Your task to perform on an android device: turn on the 24-hour format for clock Image 0: 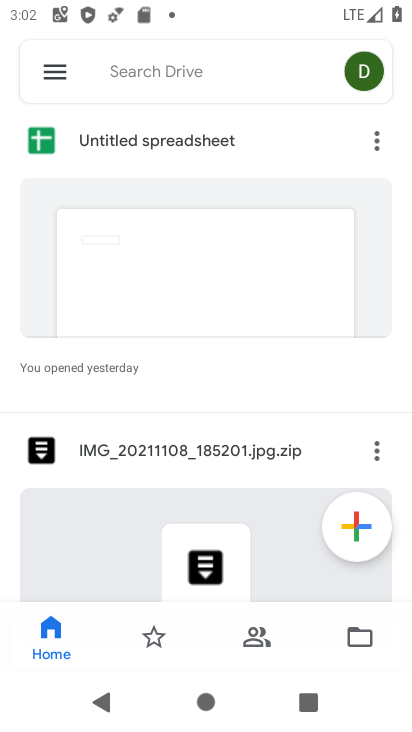
Step 0: drag from (204, 464) to (235, 94)
Your task to perform on an android device: turn on the 24-hour format for clock Image 1: 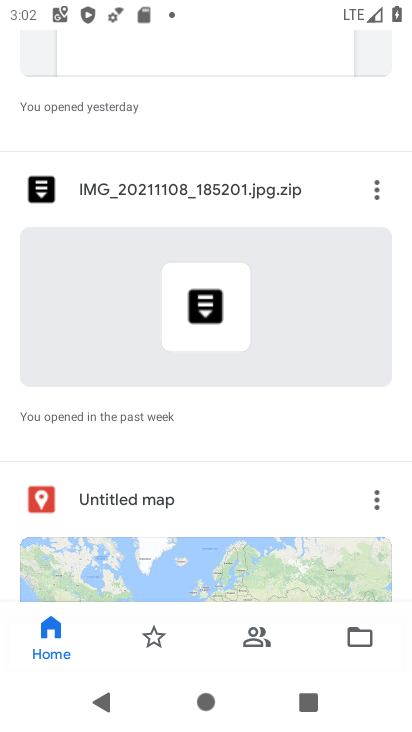
Step 1: drag from (179, 486) to (280, 163)
Your task to perform on an android device: turn on the 24-hour format for clock Image 2: 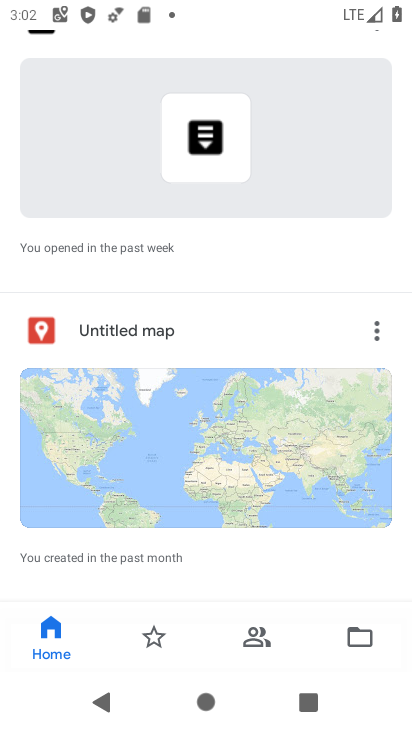
Step 2: drag from (246, 164) to (224, 609)
Your task to perform on an android device: turn on the 24-hour format for clock Image 3: 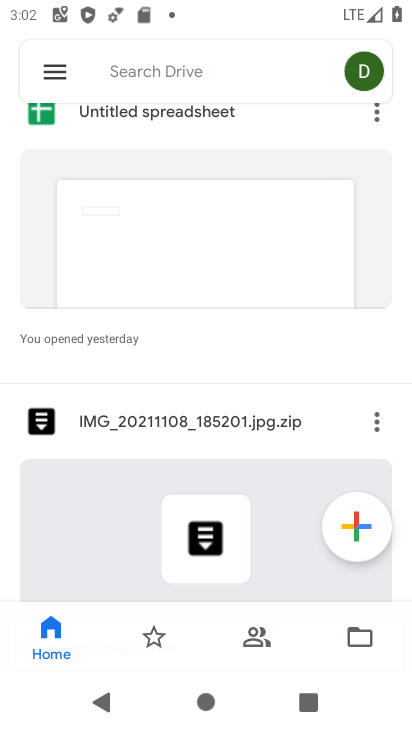
Step 3: press home button
Your task to perform on an android device: turn on the 24-hour format for clock Image 4: 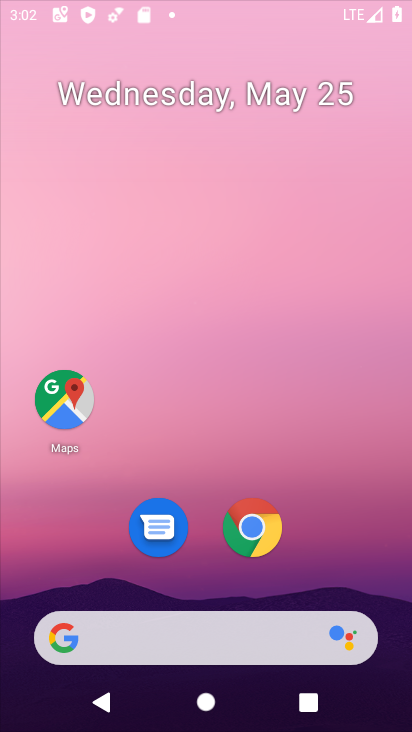
Step 4: drag from (174, 565) to (249, 5)
Your task to perform on an android device: turn on the 24-hour format for clock Image 5: 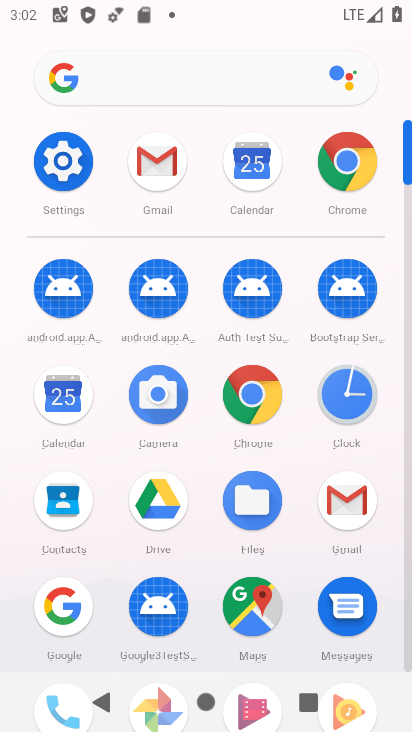
Step 5: click (333, 404)
Your task to perform on an android device: turn on the 24-hour format for clock Image 6: 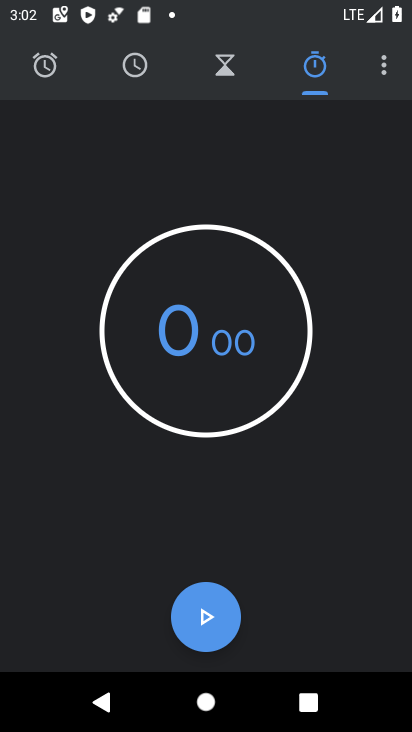
Step 6: click (390, 57)
Your task to perform on an android device: turn on the 24-hour format for clock Image 7: 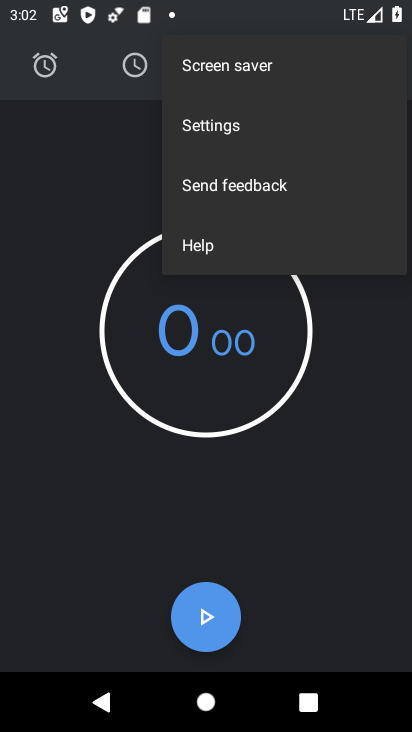
Step 7: click (242, 115)
Your task to perform on an android device: turn on the 24-hour format for clock Image 8: 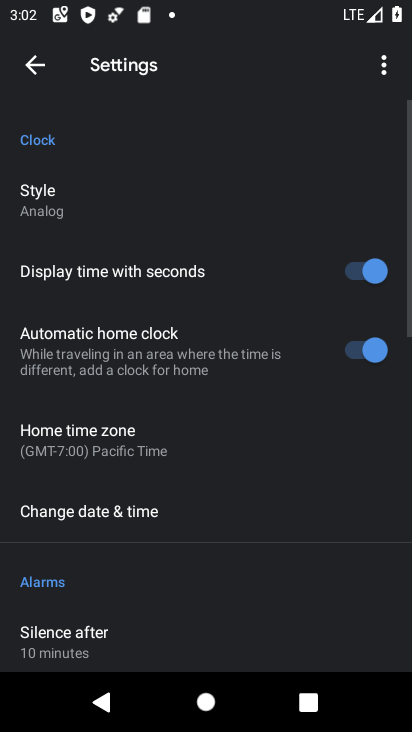
Step 8: click (81, 511)
Your task to perform on an android device: turn on the 24-hour format for clock Image 9: 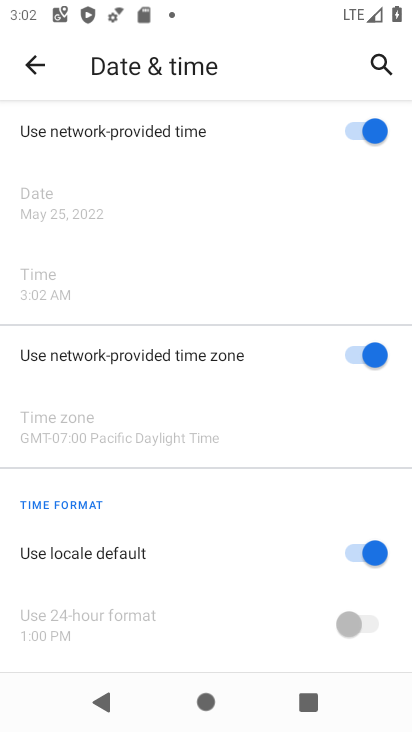
Step 9: drag from (185, 563) to (181, 723)
Your task to perform on an android device: turn on the 24-hour format for clock Image 10: 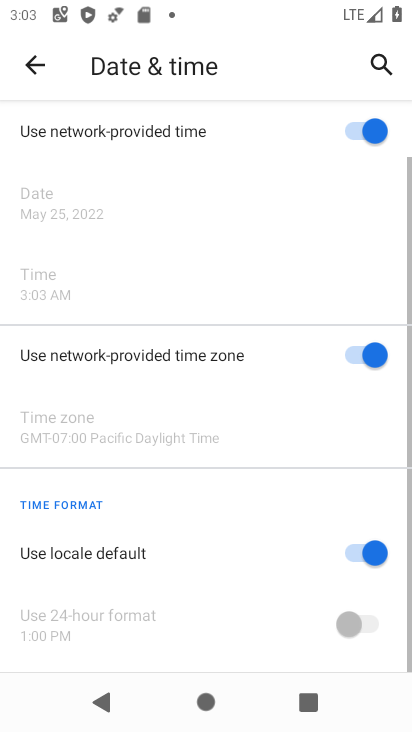
Step 10: click (368, 552)
Your task to perform on an android device: turn on the 24-hour format for clock Image 11: 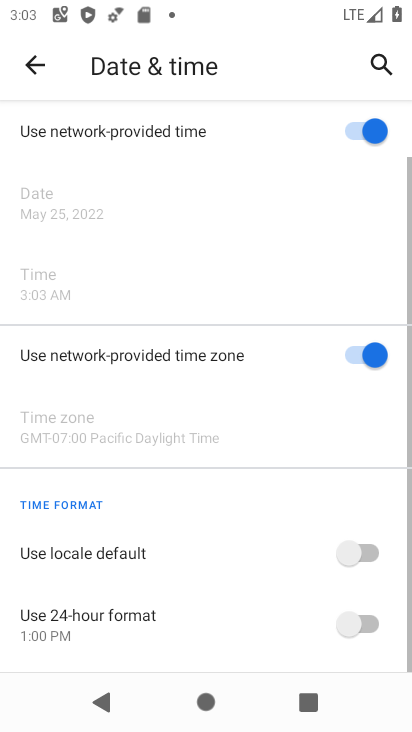
Step 11: click (336, 631)
Your task to perform on an android device: turn on the 24-hour format for clock Image 12: 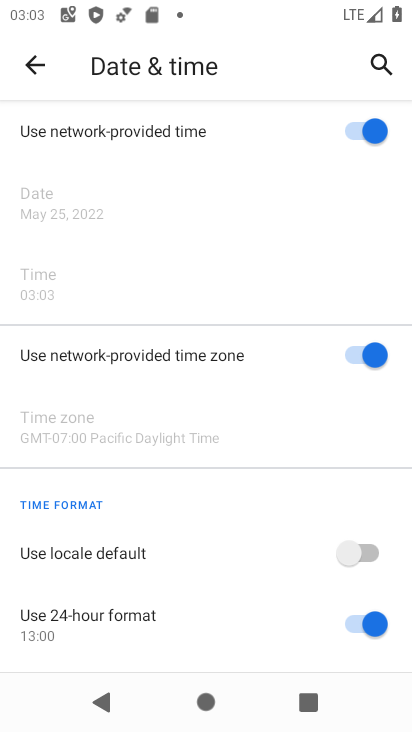
Step 12: task complete